Your task to perform on an android device: turn off airplane mode Image 0: 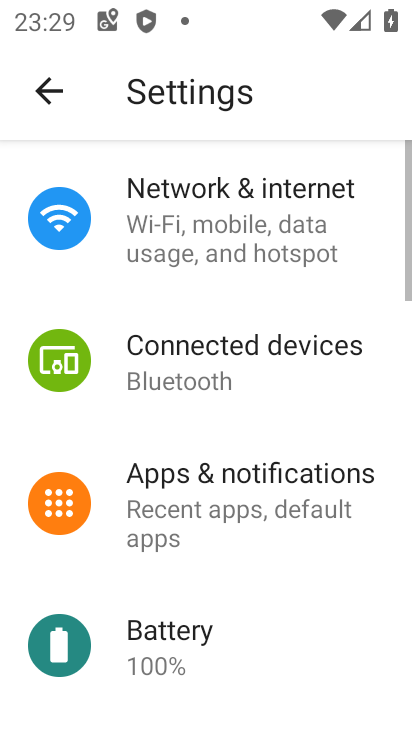
Step 0: click (246, 218)
Your task to perform on an android device: turn off airplane mode Image 1: 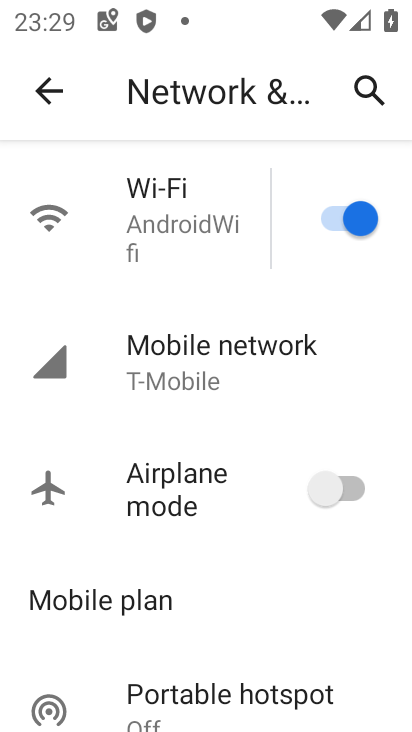
Step 1: click (355, 227)
Your task to perform on an android device: turn off airplane mode Image 2: 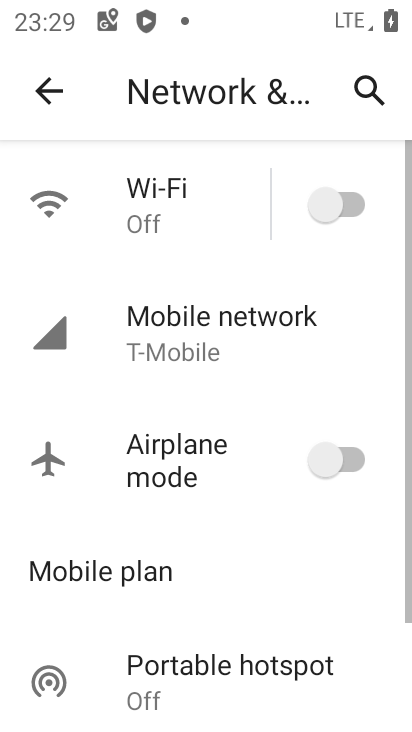
Step 2: click (347, 508)
Your task to perform on an android device: turn off airplane mode Image 3: 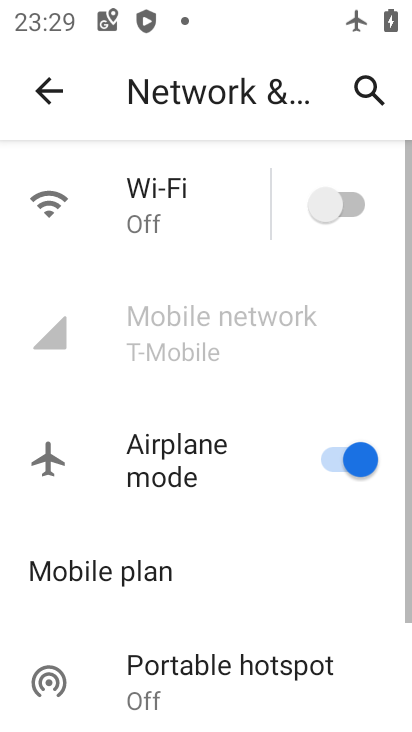
Step 3: click (342, 211)
Your task to perform on an android device: turn off airplane mode Image 4: 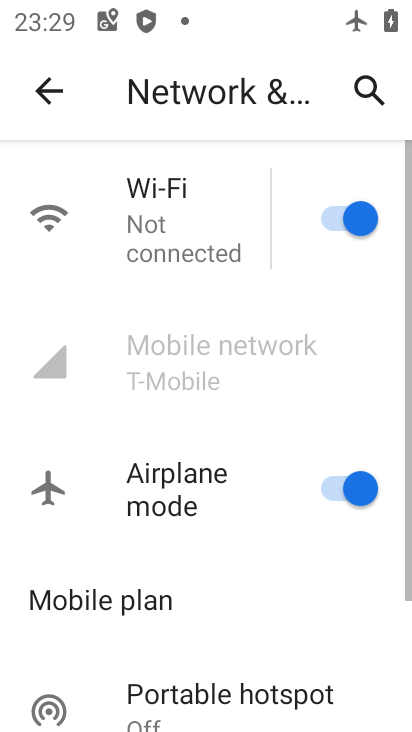
Step 4: task complete